Your task to perform on an android device: Go to location settings Image 0: 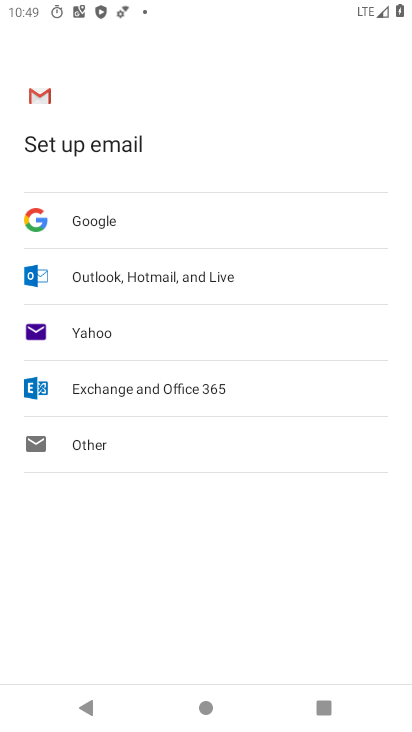
Step 0: press back button
Your task to perform on an android device: Go to location settings Image 1: 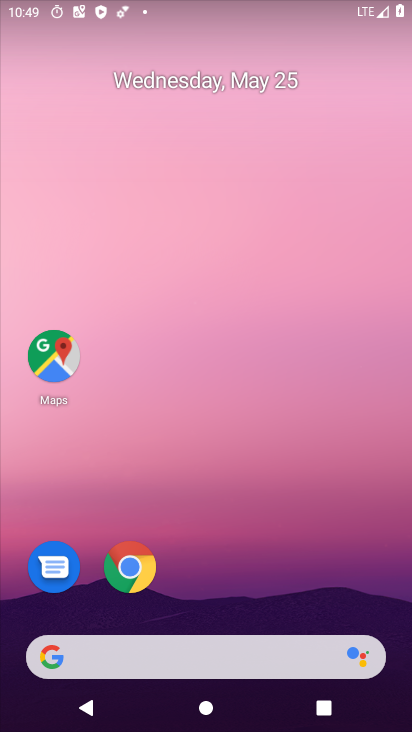
Step 1: drag from (263, 573) to (194, 35)
Your task to perform on an android device: Go to location settings Image 2: 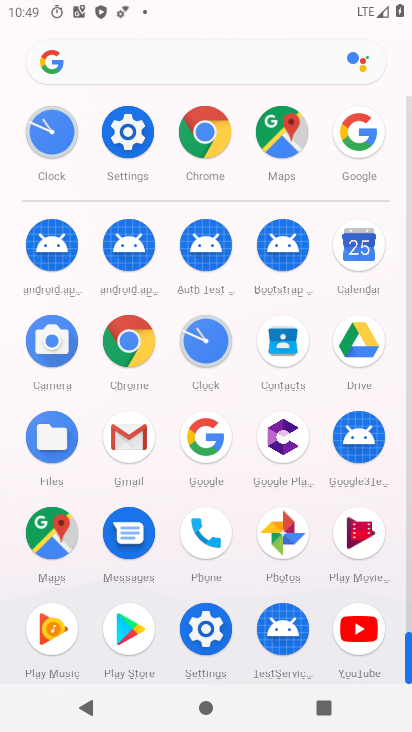
Step 2: click (199, 634)
Your task to perform on an android device: Go to location settings Image 3: 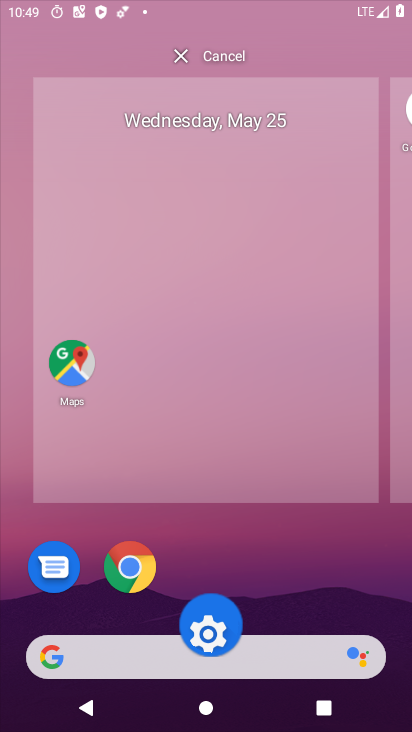
Step 3: click (203, 630)
Your task to perform on an android device: Go to location settings Image 4: 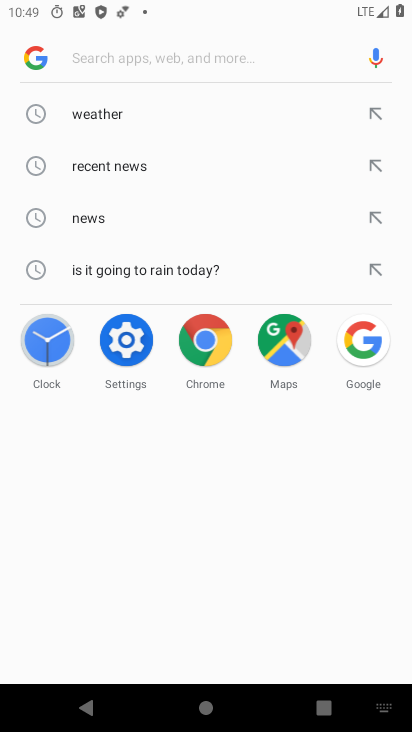
Step 4: press back button
Your task to perform on an android device: Go to location settings Image 5: 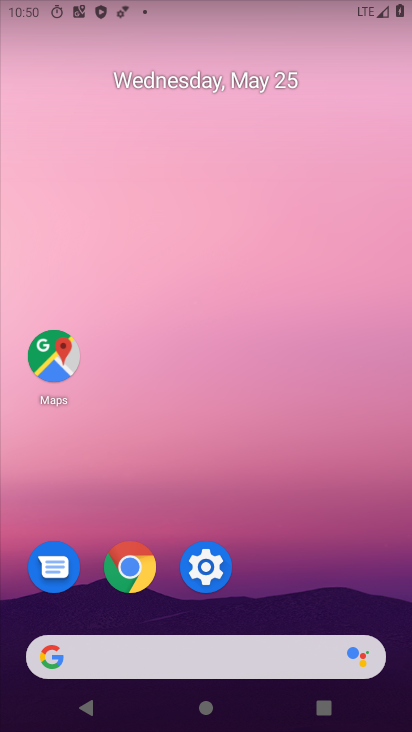
Step 5: press back button
Your task to perform on an android device: Go to location settings Image 6: 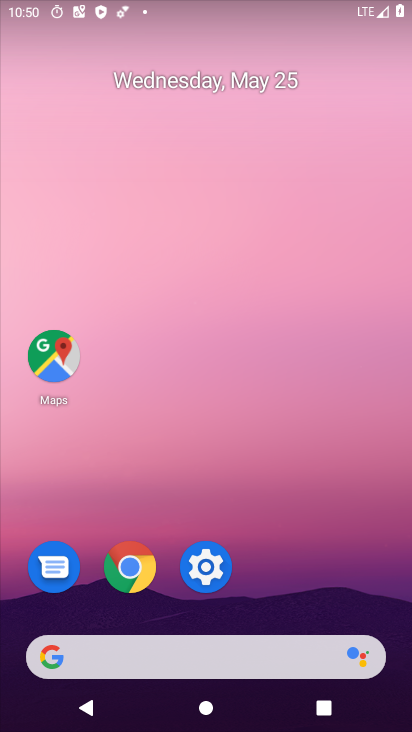
Step 6: drag from (275, 667) to (142, 121)
Your task to perform on an android device: Go to location settings Image 7: 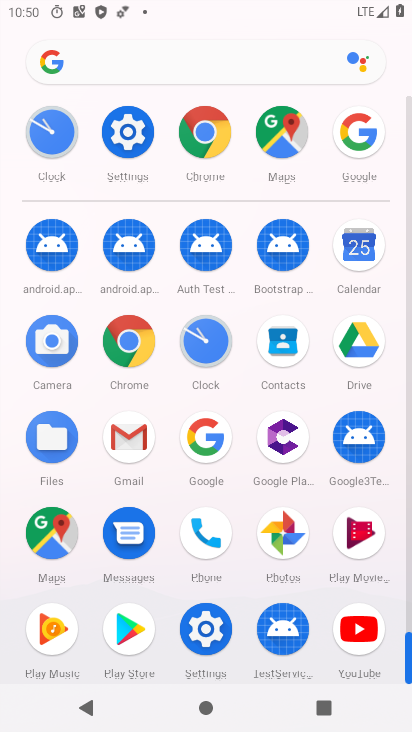
Step 7: click (204, 630)
Your task to perform on an android device: Go to location settings Image 8: 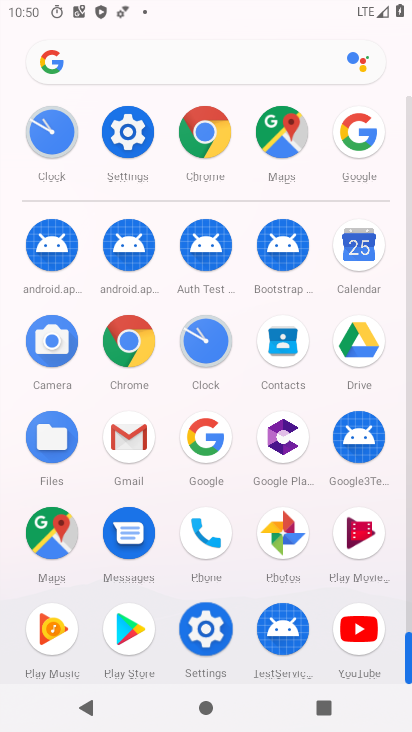
Step 8: click (205, 631)
Your task to perform on an android device: Go to location settings Image 9: 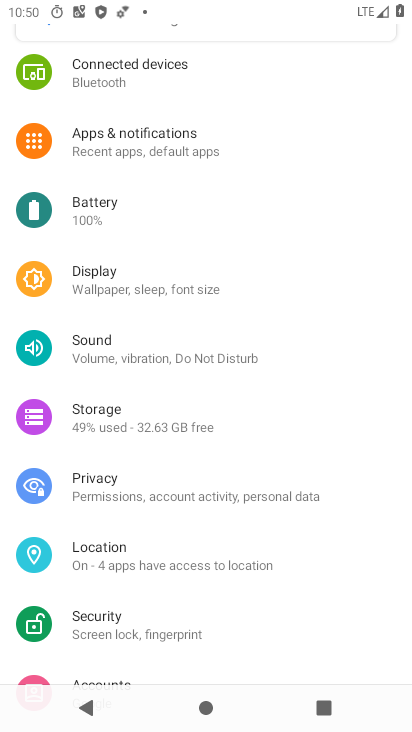
Step 9: click (208, 629)
Your task to perform on an android device: Go to location settings Image 10: 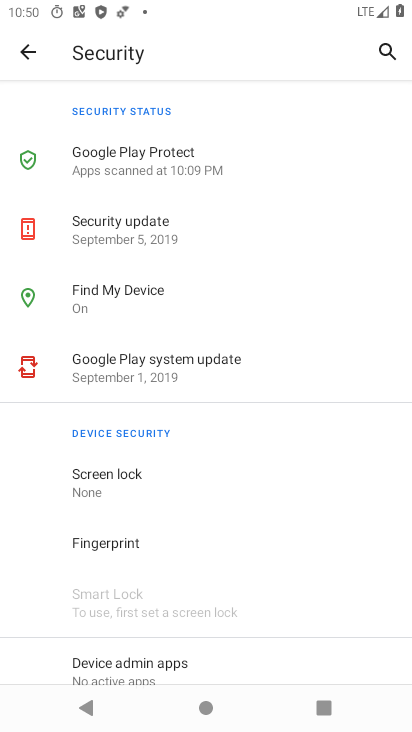
Step 10: click (17, 48)
Your task to perform on an android device: Go to location settings Image 11: 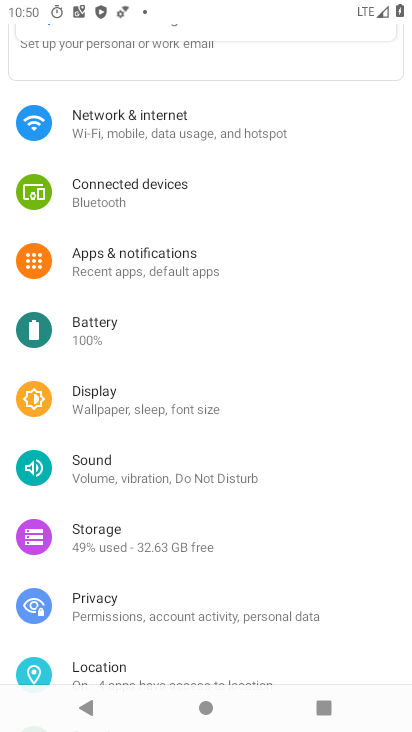
Step 11: drag from (153, 547) to (173, 148)
Your task to perform on an android device: Go to location settings Image 12: 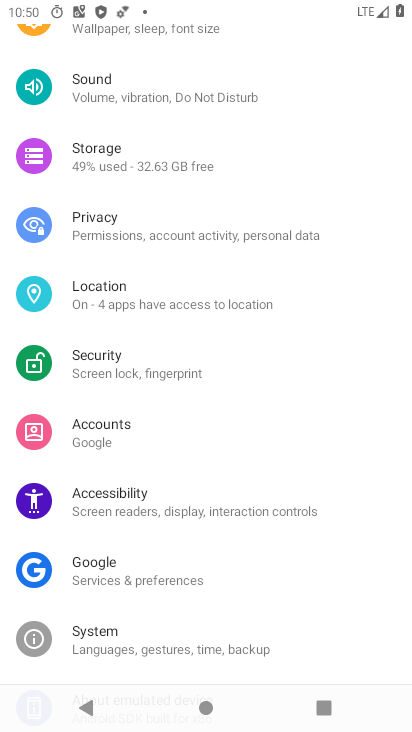
Step 12: drag from (179, 570) to (201, 157)
Your task to perform on an android device: Go to location settings Image 13: 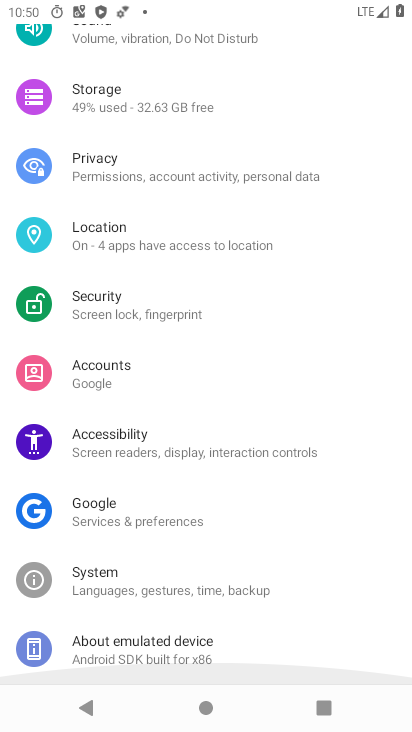
Step 13: drag from (201, 449) to (176, 142)
Your task to perform on an android device: Go to location settings Image 14: 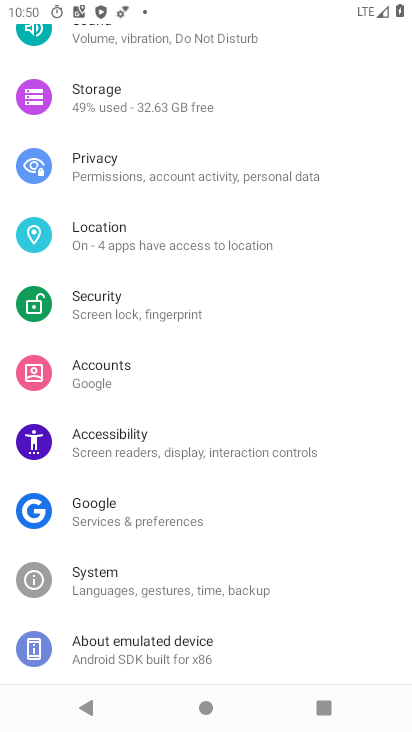
Step 14: click (106, 230)
Your task to perform on an android device: Go to location settings Image 15: 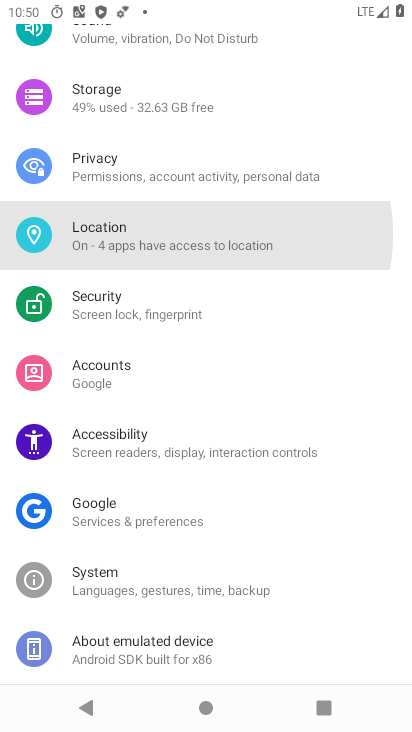
Step 15: click (106, 231)
Your task to perform on an android device: Go to location settings Image 16: 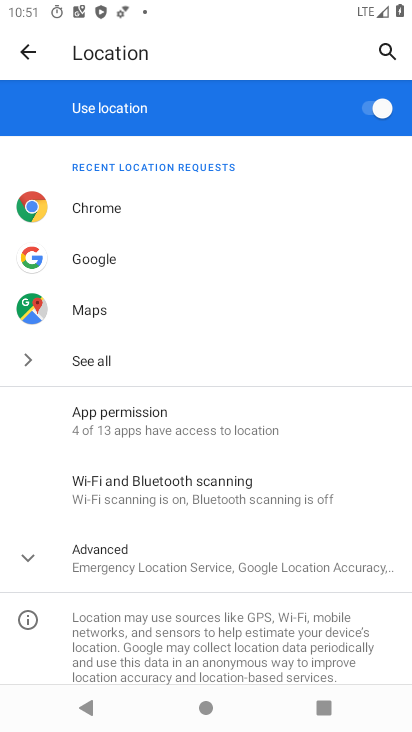
Step 16: task complete